Your task to perform on an android device: Search for Mexican restaurants on Maps Image 0: 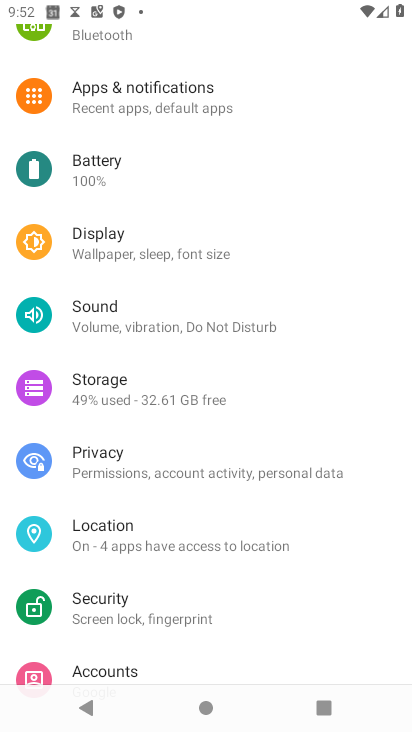
Step 0: press home button
Your task to perform on an android device: Search for Mexican restaurants on Maps Image 1: 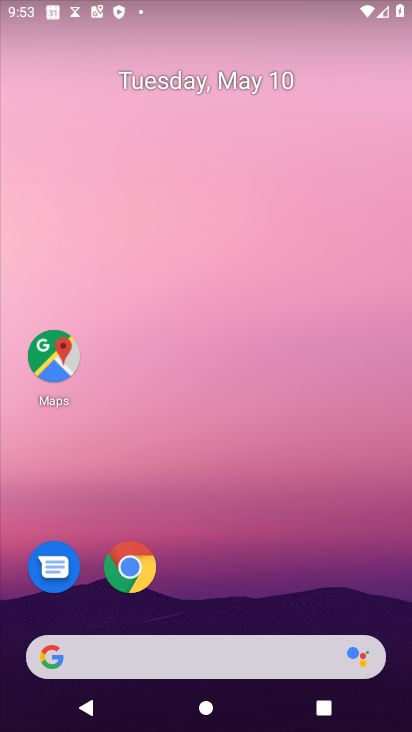
Step 1: click (68, 359)
Your task to perform on an android device: Search for Mexican restaurants on Maps Image 2: 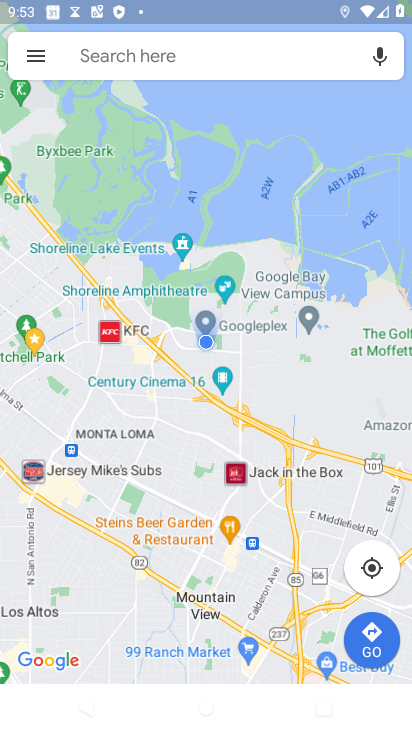
Step 2: click (231, 65)
Your task to perform on an android device: Search for Mexican restaurants on Maps Image 3: 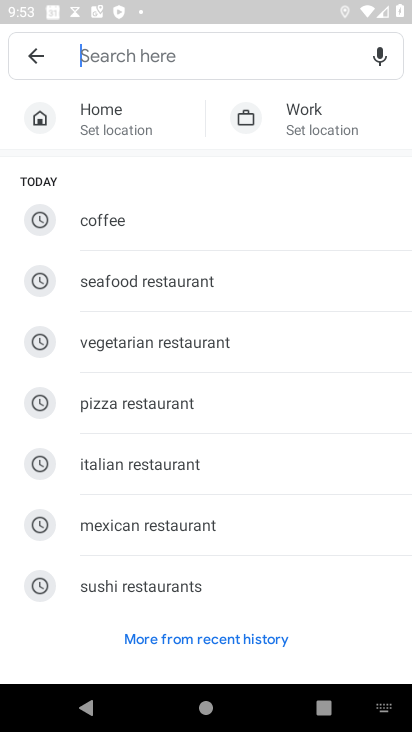
Step 3: click (109, 526)
Your task to perform on an android device: Search for Mexican restaurants on Maps Image 4: 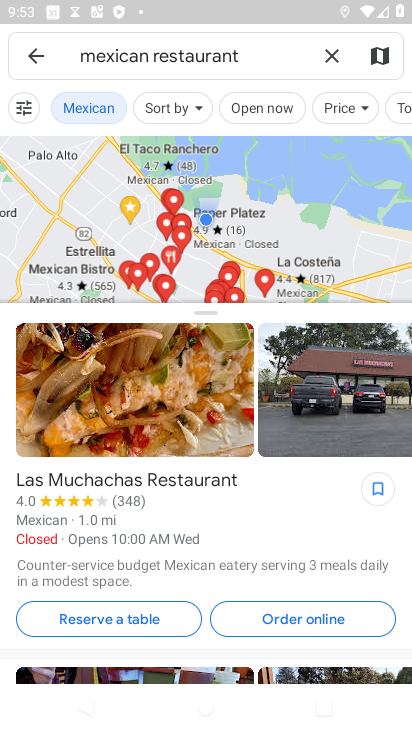
Step 4: task complete